Your task to perform on an android device: Show me recent news Image 0: 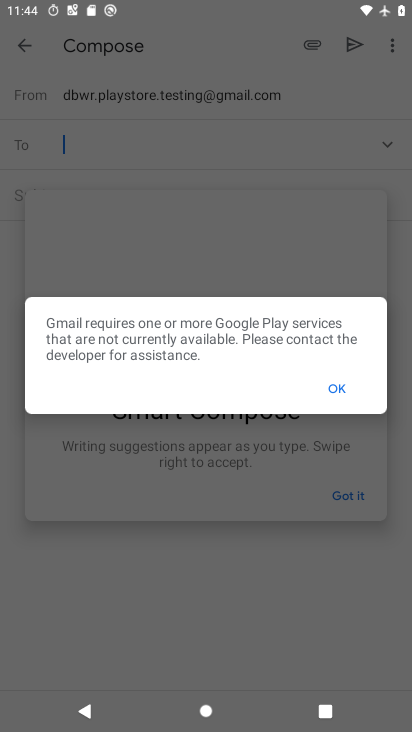
Step 0: press home button
Your task to perform on an android device: Show me recent news Image 1: 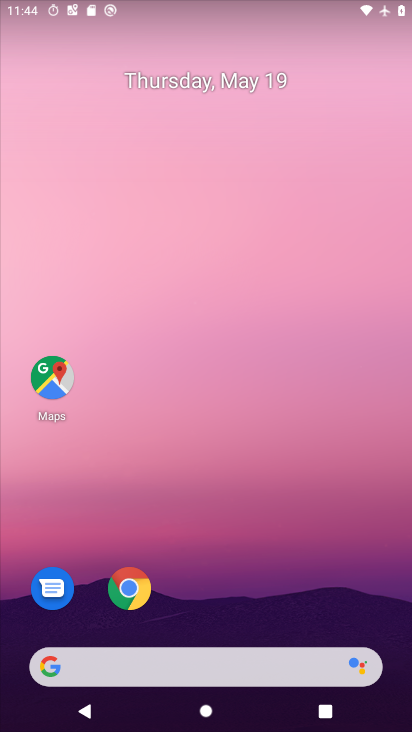
Step 1: click (56, 670)
Your task to perform on an android device: Show me recent news Image 2: 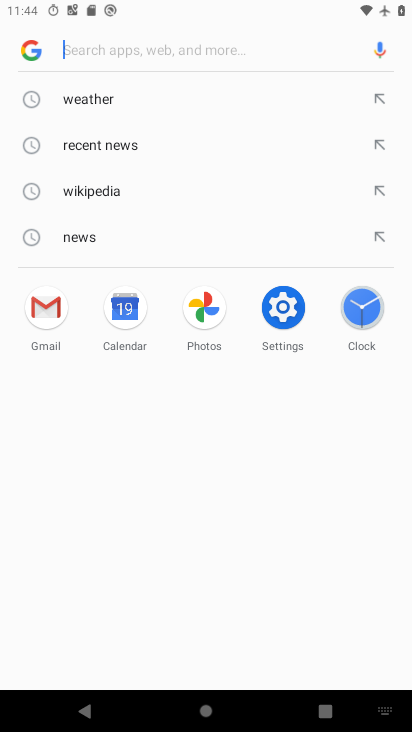
Step 2: click (72, 236)
Your task to perform on an android device: Show me recent news Image 3: 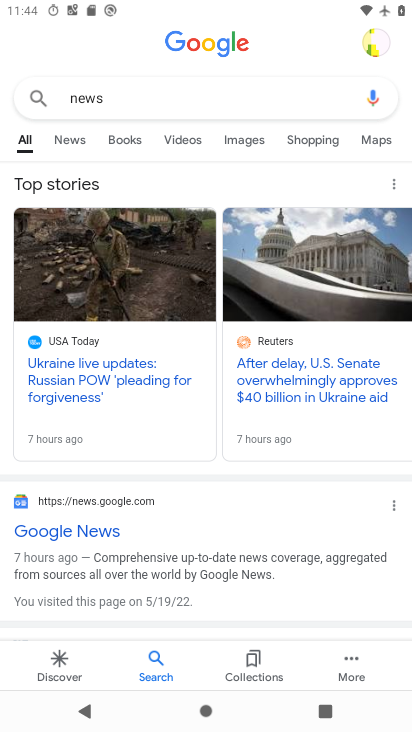
Step 3: click (72, 137)
Your task to perform on an android device: Show me recent news Image 4: 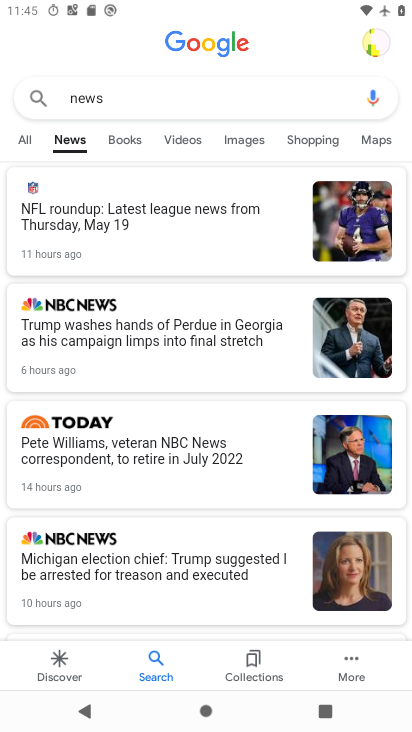
Step 4: task complete